Your task to perform on an android device: toggle priority inbox in the gmail app Image 0: 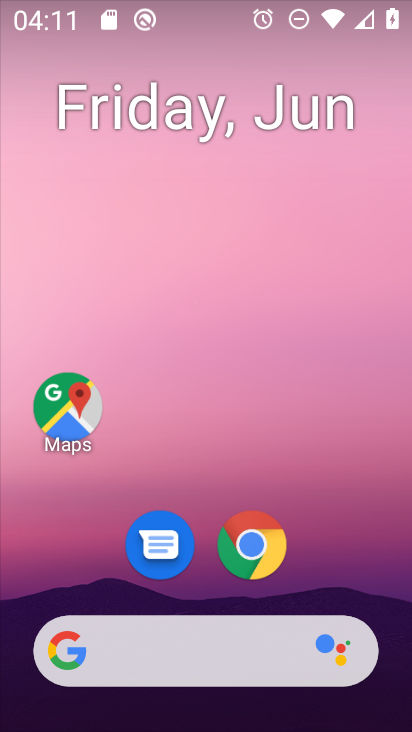
Step 0: drag from (322, 560) to (339, 18)
Your task to perform on an android device: toggle priority inbox in the gmail app Image 1: 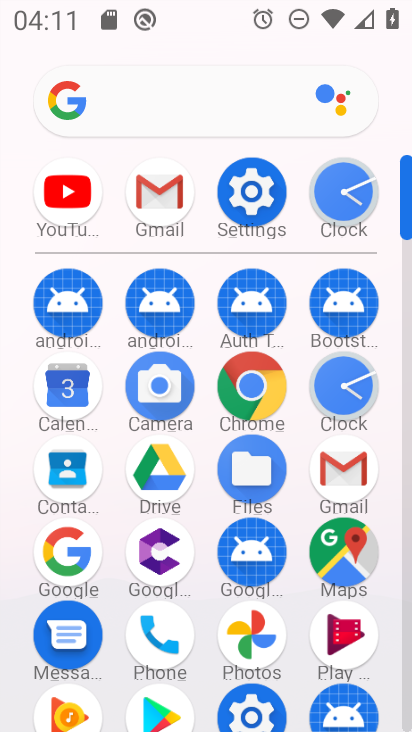
Step 1: click (349, 470)
Your task to perform on an android device: toggle priority inbox in the gmail app Image 2: 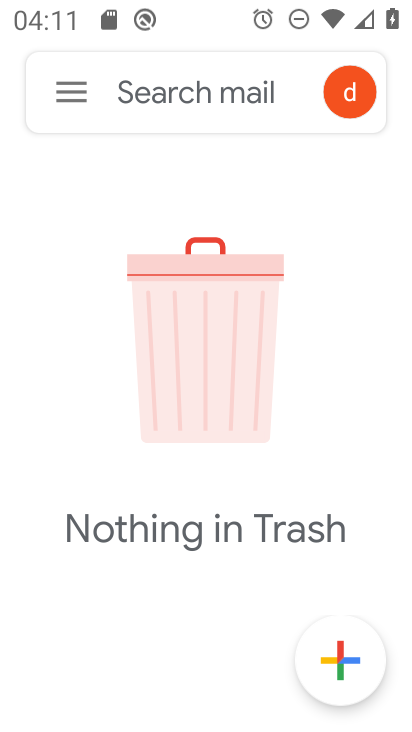
Step 2: click (78, 99)
Your task to perform on an android device: toggle priority inbox in the gmail app Image 3: 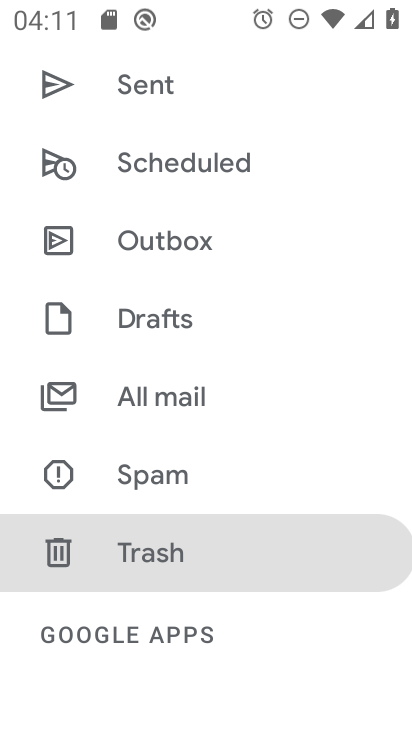
Step 3: drag from (159, 629) to (186, 166)
Your task to perform on an android device: toggle priority inbox in the gmail app Image 4: 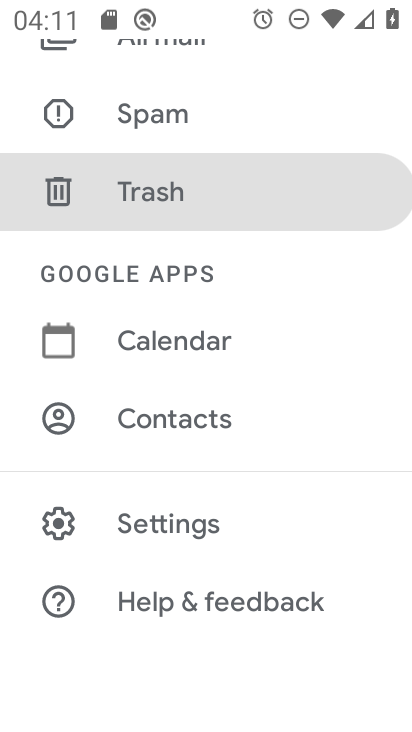
Step 4: click (136, 557)
Your task to perform on an android device: toggle priority inbox in the gmail app Image 5: 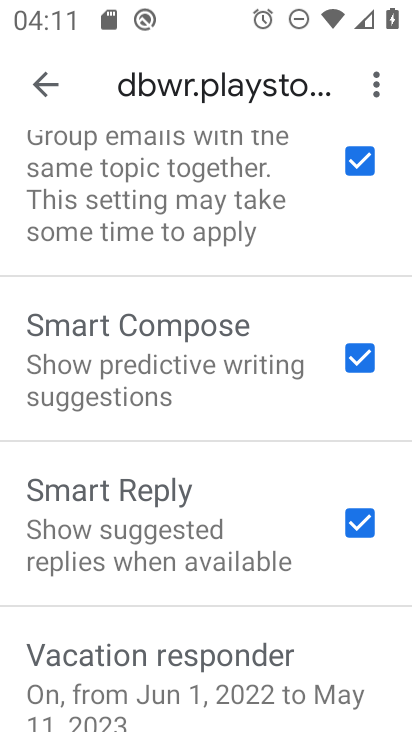
Step 5: drag from (107, 260) to (210, 727)
Your task to perform on an android device: toggle priority inbox in the gmail app Image 6: 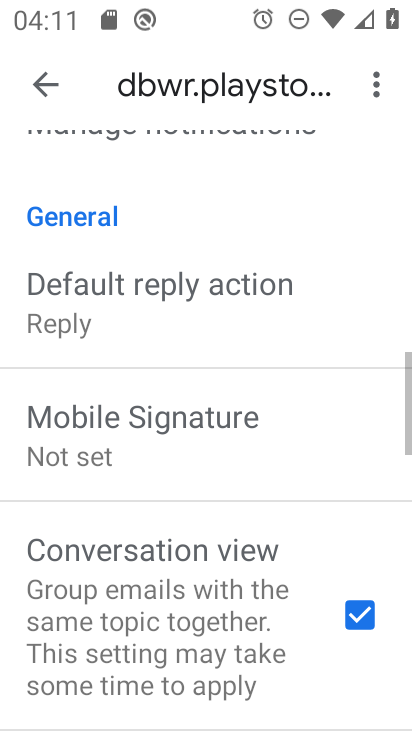
Step 6: drag from (190, 284) to (176, 731)
Your task to perform on an android device: toggle priority inbox in the gmail app Image 7: 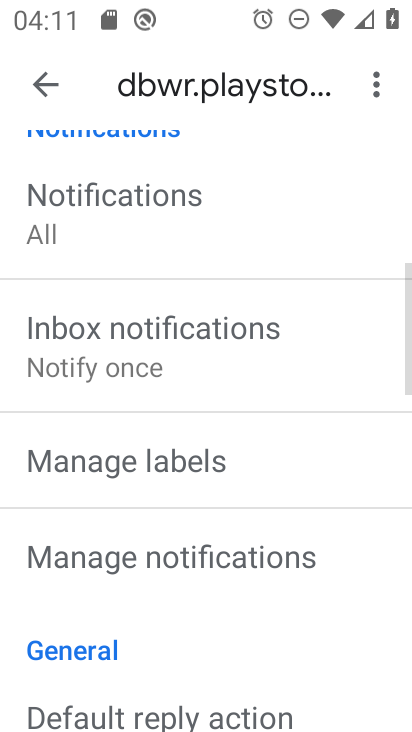
Step 7: drag from (127, 301) to (118, 699)
Your task to perform on an android device: toggle priority inbox in the gmail app Image 8: 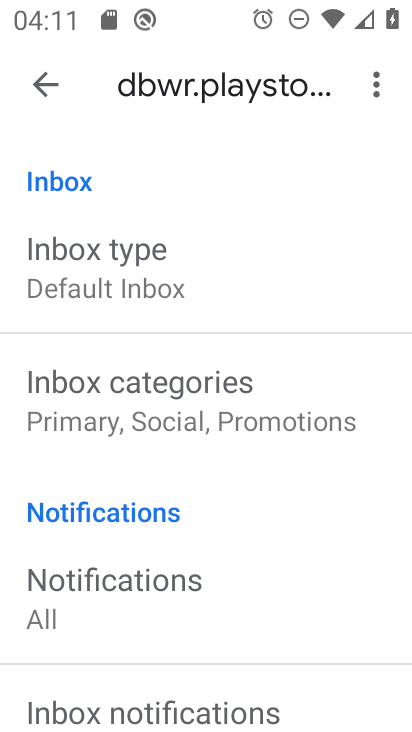
Step 8: click (112, 293)
Your task to perform on an android device: toggle priority inbox in the gmail app Image 9: 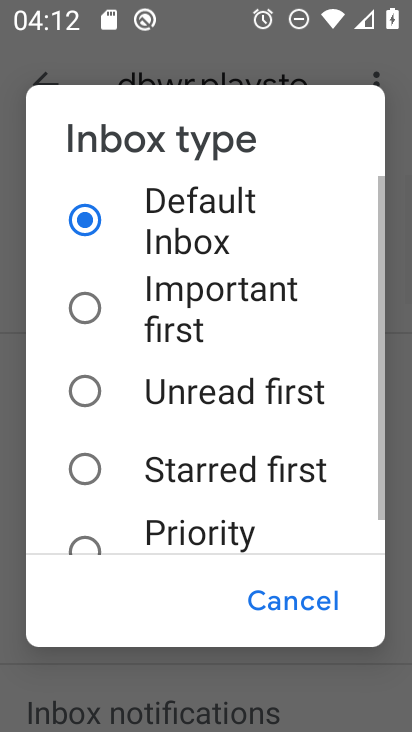
Step 9: click (157, 535)
Your task to perform on an android device: toggle priority inbox in the gmail app Image 10: 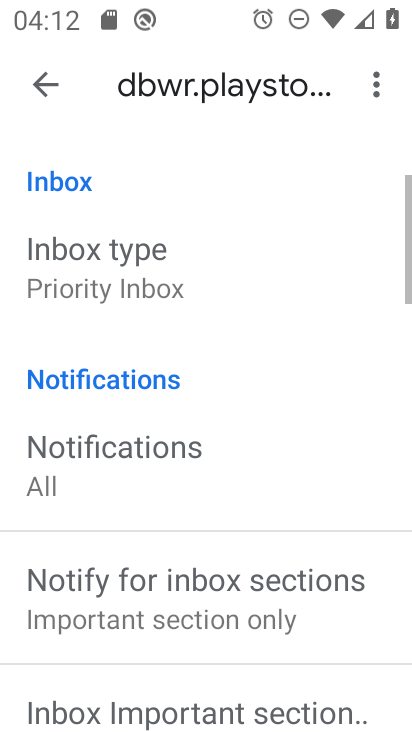
Step 10: task complete